Your task to perform on an android device: allow notifications from all sites in the chrome app Image 0: 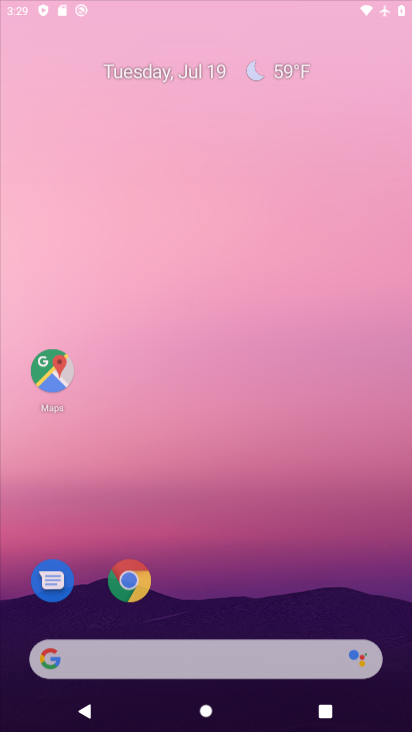
Step 0: press home button
Your task to perform on an android device: allow notifications from all sites in the chrome app Image 1: 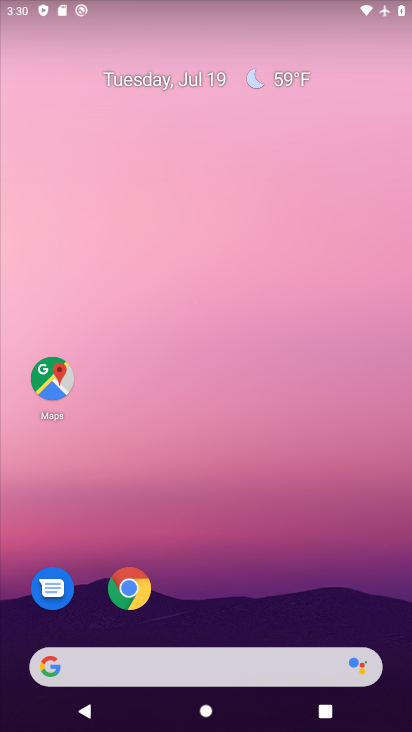
Step 1: drag from (257, 638) to (272, 260)
Your task to perform on an android device: allow notifications from all sites in the chrome app Image 2: 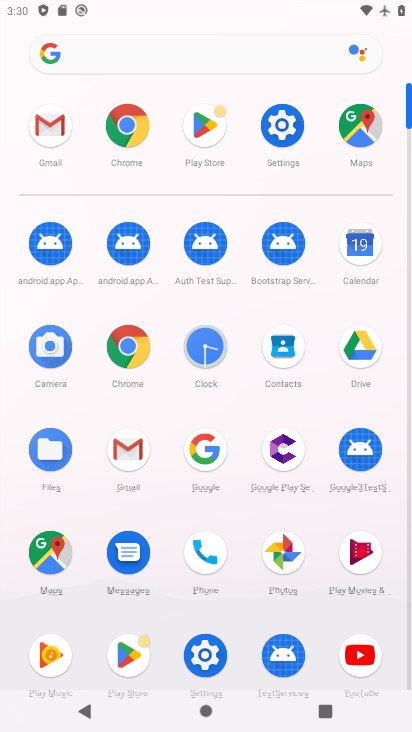
Step 2: click (129, 138)
Your task to perform on an android device: allow notifications from all sites in the chrome app Image 3: 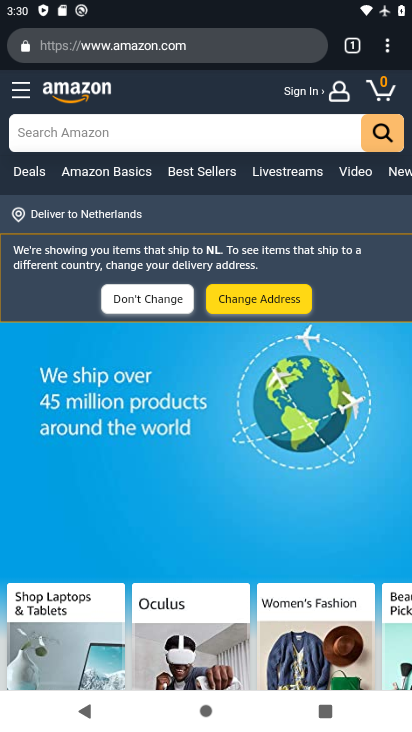
Step 3: drag from (388, 54) to (215, 504)
Your task to perform on an android device: allow notifications from all sites in the chrome app Image 4: 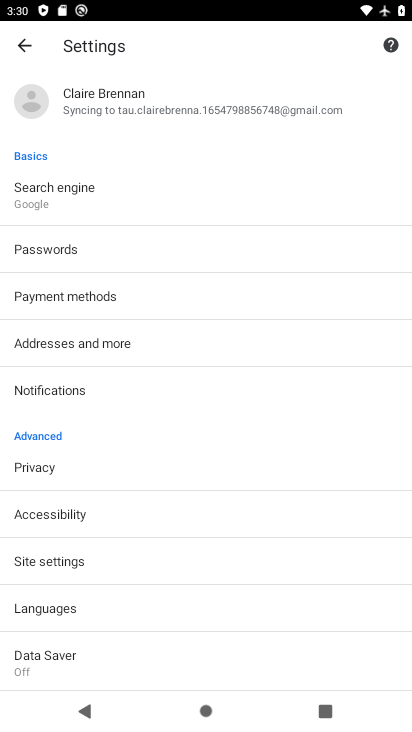
Step 4: click (37, 558)
Your task to perform on an android device: allow notifications from all sites in the chrome app Image 5: 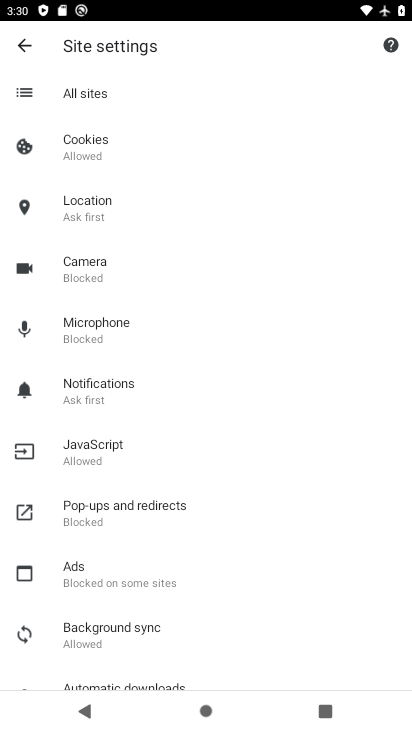
Step 5: click (101, 385)
Your task to perform on an android device: allow notifications from all sites in the chrome app Image 6: 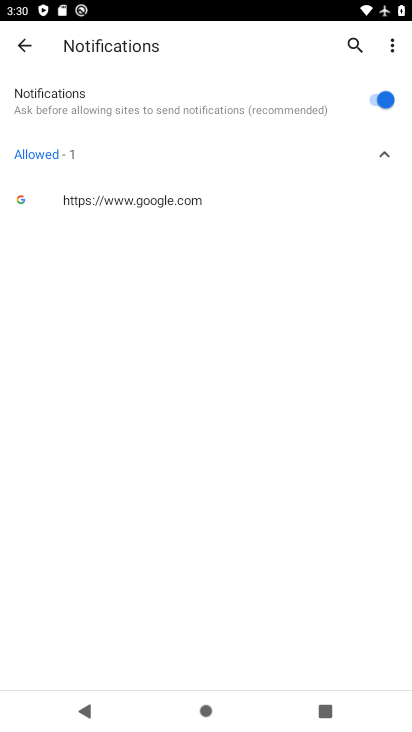
Step 6: task complete